Your task to perform on an android device: toggle sleep mode Image 0: 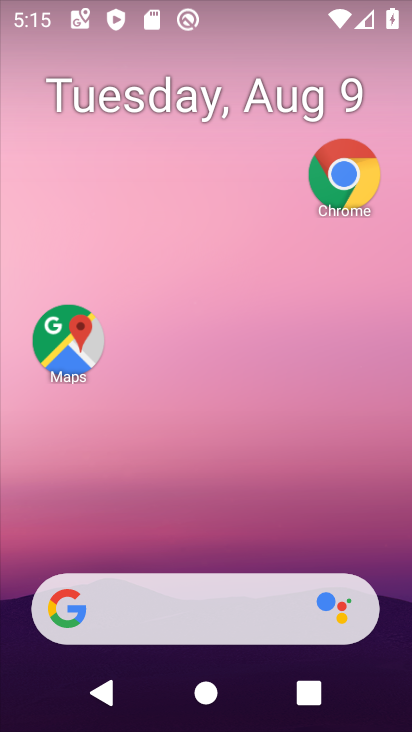
Step 0: drag from (223, 556) to (229, 78)
Your task to perform on an android device: toggle sleep mode Image 1: 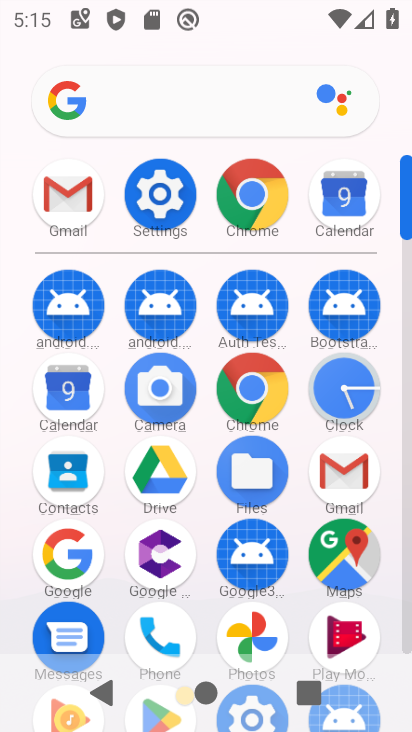
Step 1: drag from (209, 588) to (213, 353)
Your task to perform on an android device: toggle sleep mode Image 2: 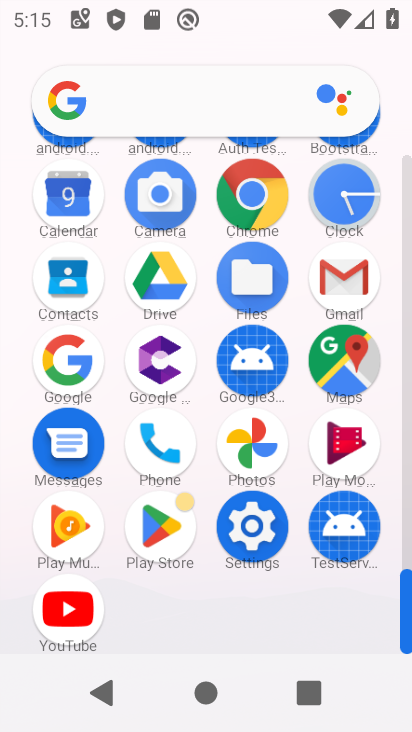
Step 2: click (252, 518)
Your task to perform on an android device: toggle sleep mode Image 3: 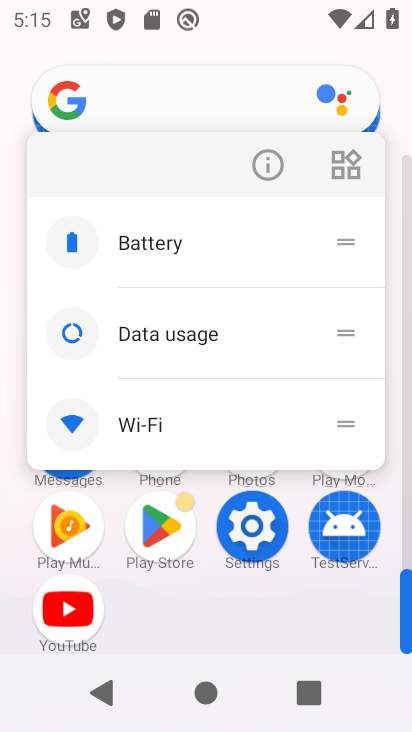
Step 3: click (265, 170)
Your task to perform on an android device: toggle sleep mode Image 4: 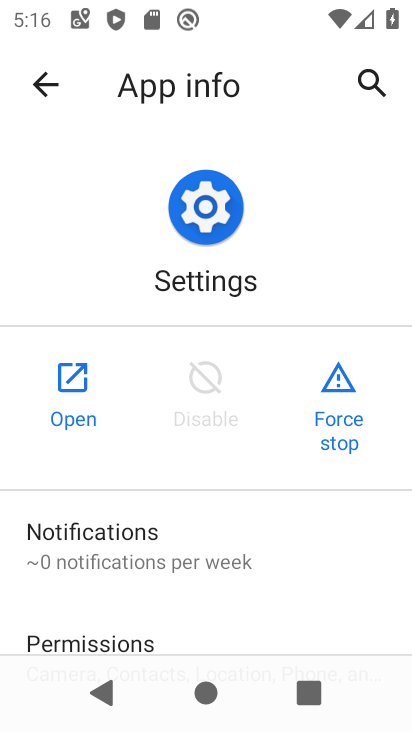
Step 4: click (47, 389)
Your task to perform on an android device: toggle sleep mode Image 5: 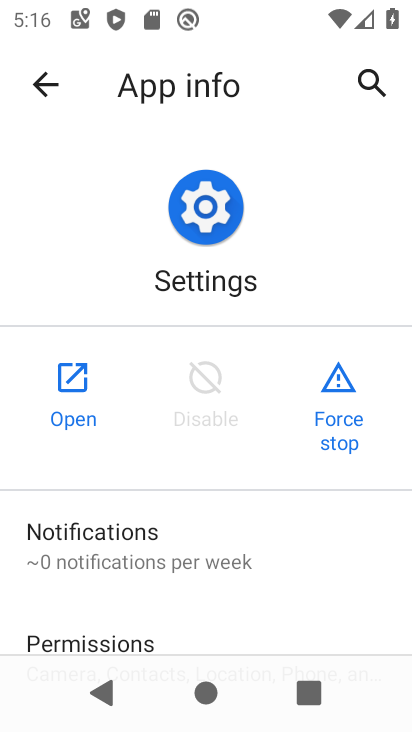
Step 5: click (48, 389)
Your task to perform on an android device: toggle sleep mode Image 6: 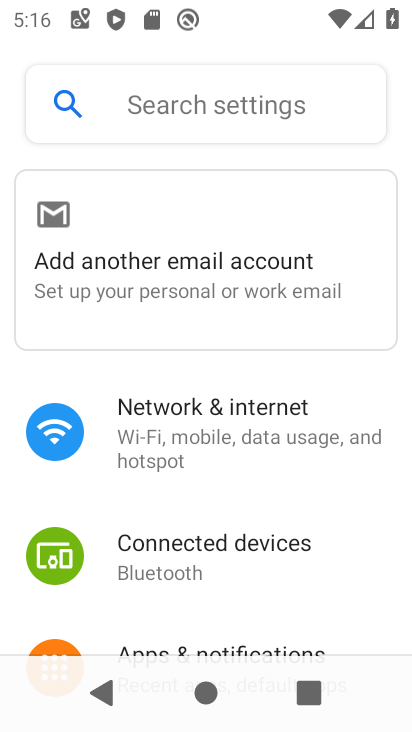
Step 6: drag from (218, 535) to (218, 267)
Your task to perform on an android device: toggle sleep mode Image 7: 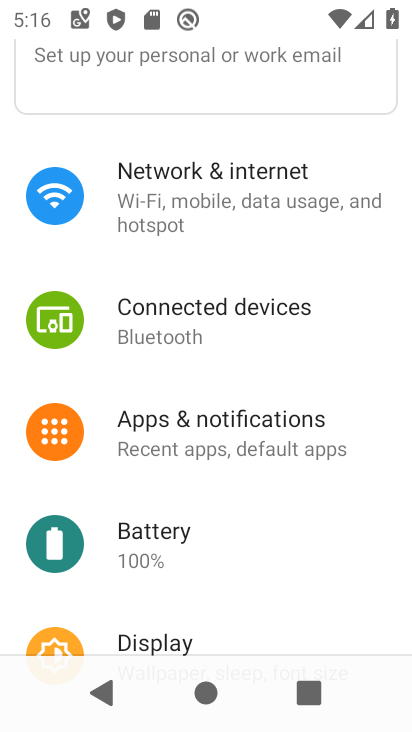
Step 7: drag from (271, 585) to (266, 383)
Your task to perform on an android device: toggle sleep mode Image 8: 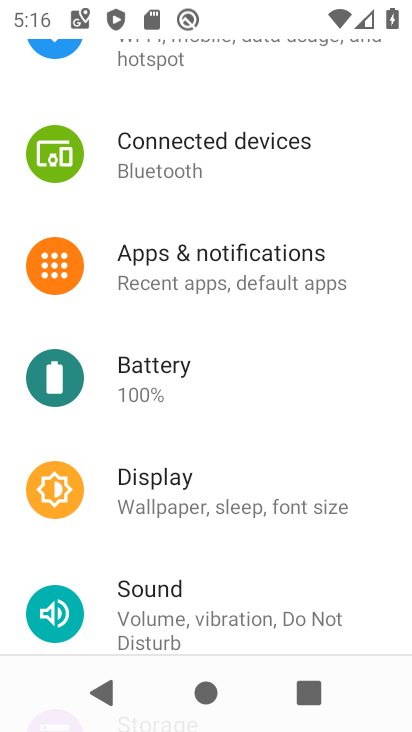
Step 8: drag from (172, 602) to (194, 212)
Your task to perform on an android device: toggle sleep mode Image 9: 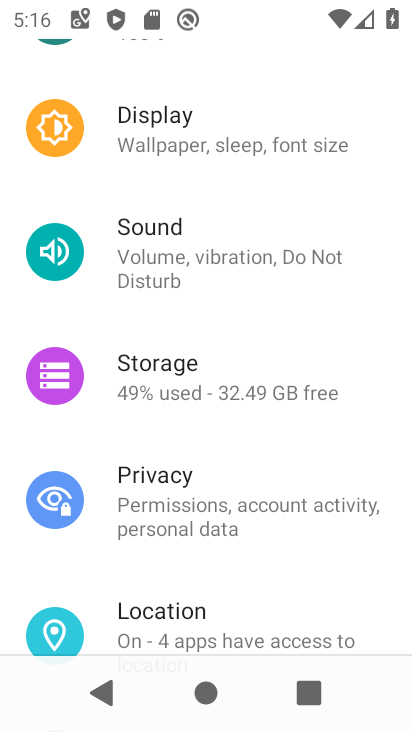
Step 9: drag from (188, 232) to (303, 725)
Your task to perform on an android device: toggle sleep mode Image 10: 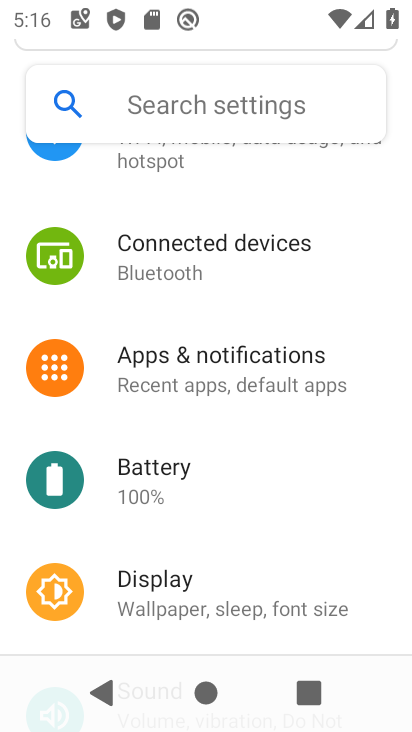
Step 10: click (219, 579)
Your task to perform on an android device: toggle sleep mode Image 11: 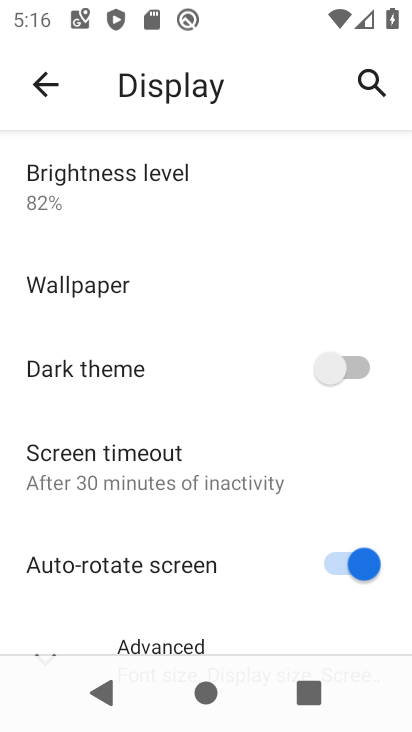
Step 11: drag from (248, 542) to (261, 177)
Your task to perform on an android device: toggle sleep mode Image 12: 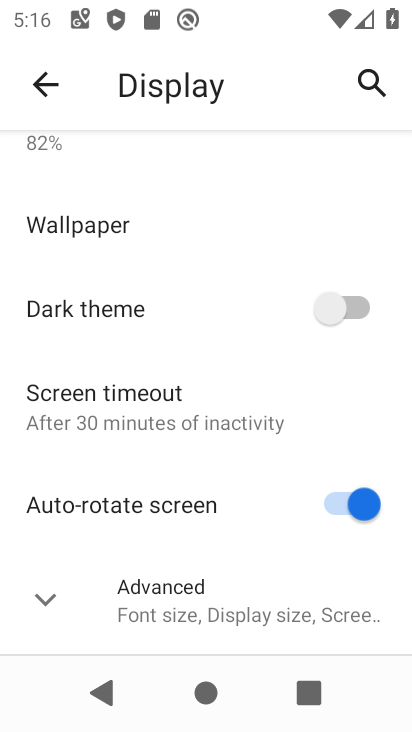
Step 12: drag from (158, 289) to (175, 514)
Your task to perform on an android device: toggle sleep mode Image 13: 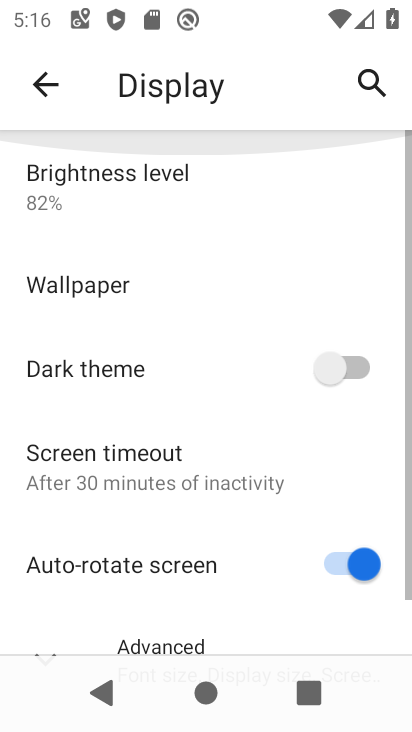
Step 13: drag from (176, 505) to (221, 416)
Your task to perform on an android device: toggle sleep mode Image 14: 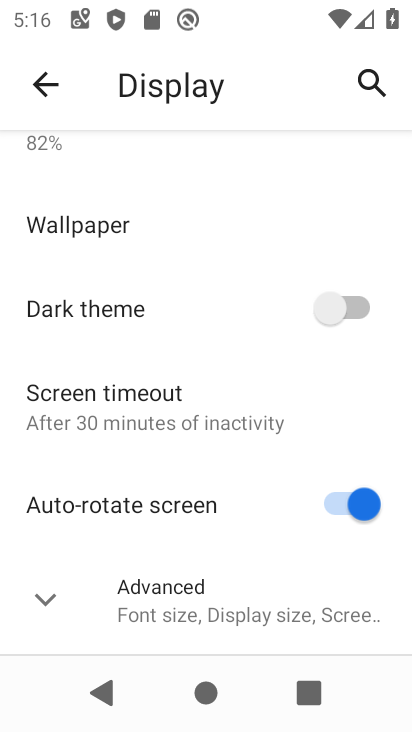
Step 14: click (168, 402)
Your task to perform on an android device: toggle sleep mode Image 15: 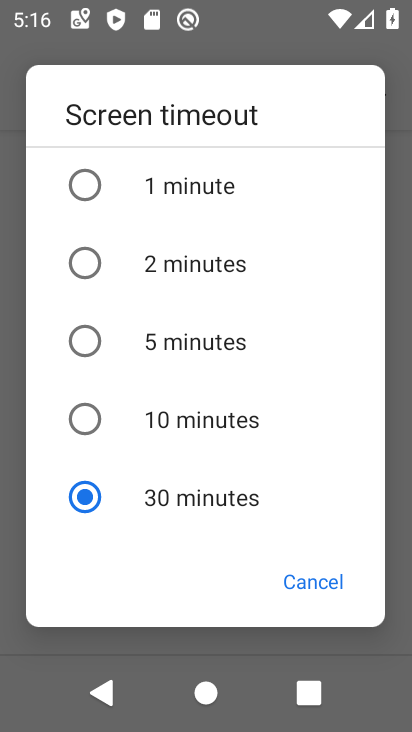
Step 15: click (141, 167)
Your task to perform on an android device: toggle sleep mode Image 16: 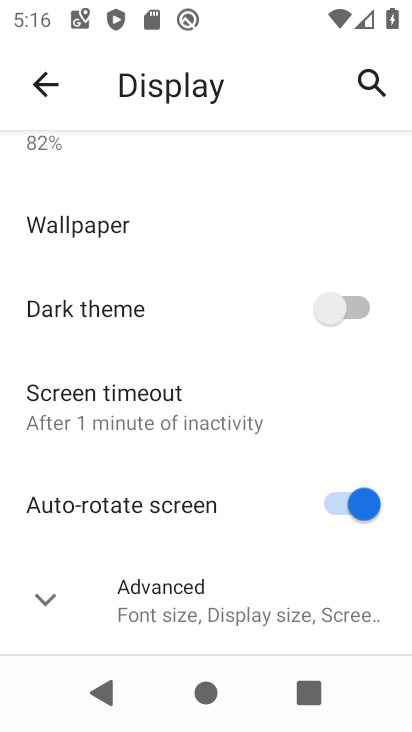
Step 16: task complete